Your task to perform on an android device: Open CNN.com Image 0: 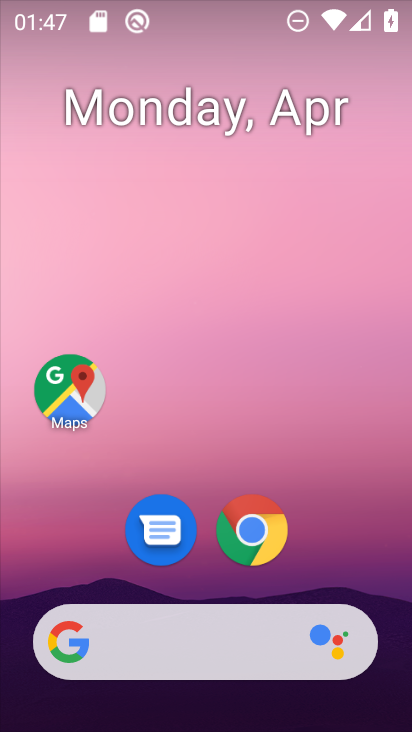
Step 0: click (251, 537)
Your task to perform on an android device: Open CNN.com Image 1: 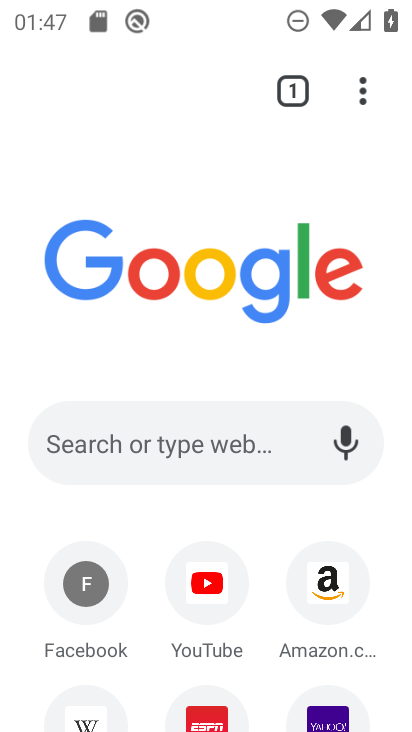
Step 1: click (188, 439)
Your task to perform on an android device: Open CNN.com Image 2: 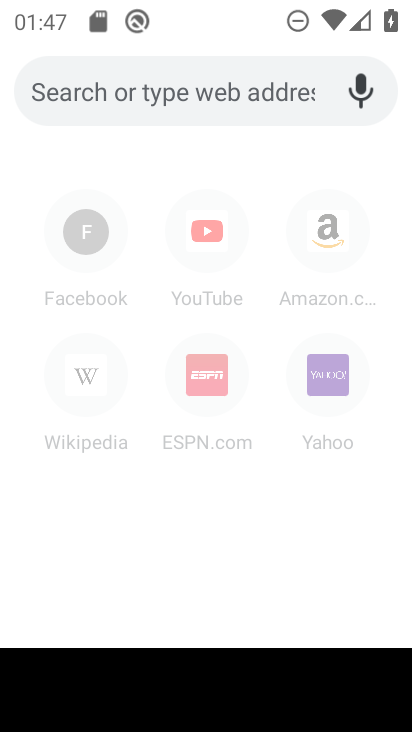
Step 2: type "cnn.com"
Your task to perform on an android device: Open CNN.com Image 3: 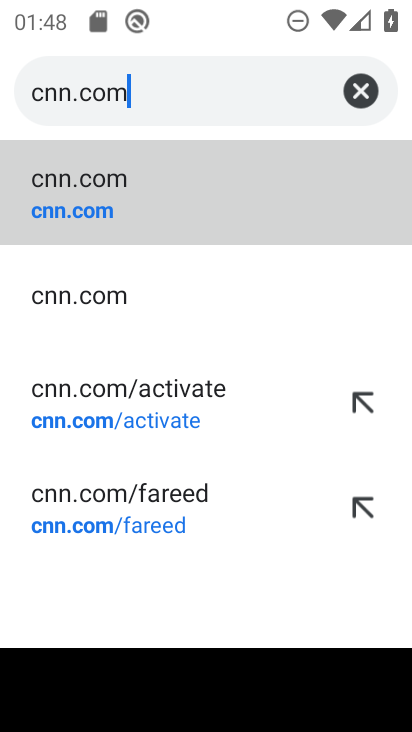
Step 3: click (114, 303)
Your task to perform on an android device: Open CNN.com Image 4: 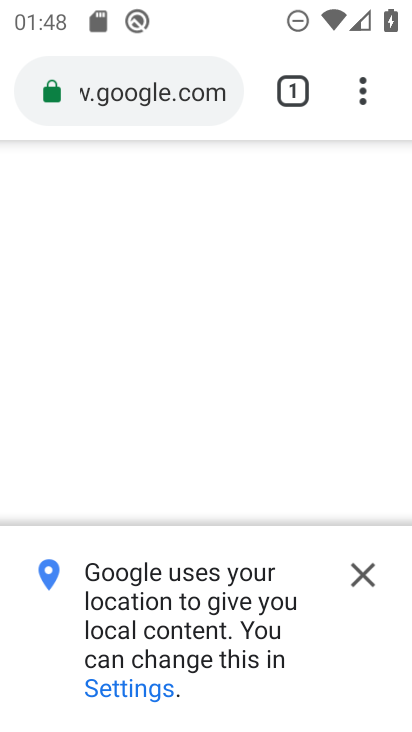
Step 4: task complete